Your task to perform on an android device: Open settings Image 0: 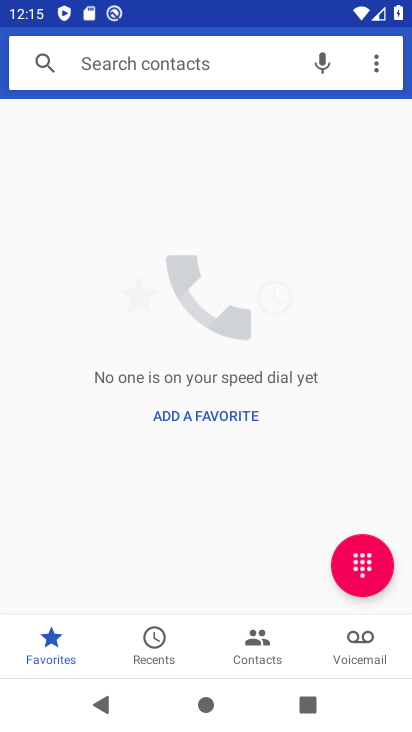
Step 0: press home button
Your task to perform on an android device: Open settings Image 1: 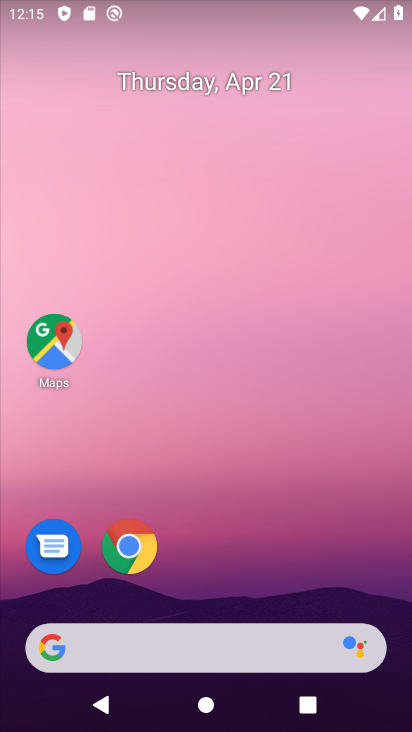
Step 1: drag from (273, 541) to (280, 11)
Your task to perform on an android device: Open settings Image 2: 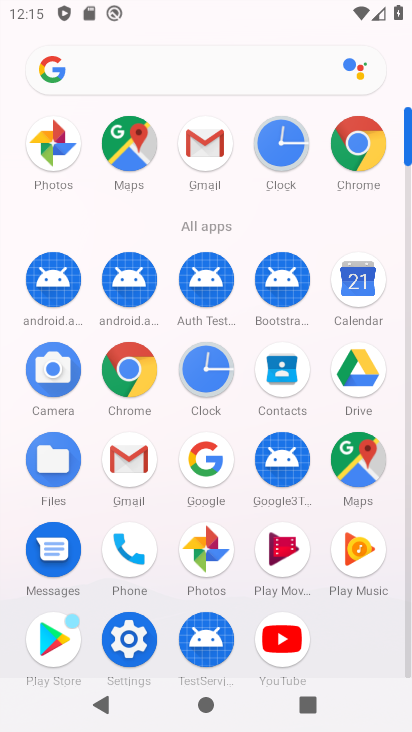
Step 2: click (115, 632)
Your task to perform on an android device: Open settings Image 3: 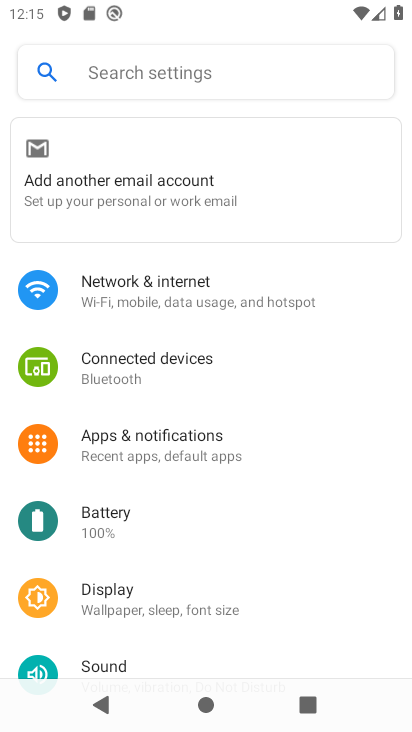
Step 3: task complete